Your task to perform on an android device: Open my contact list Image 0: 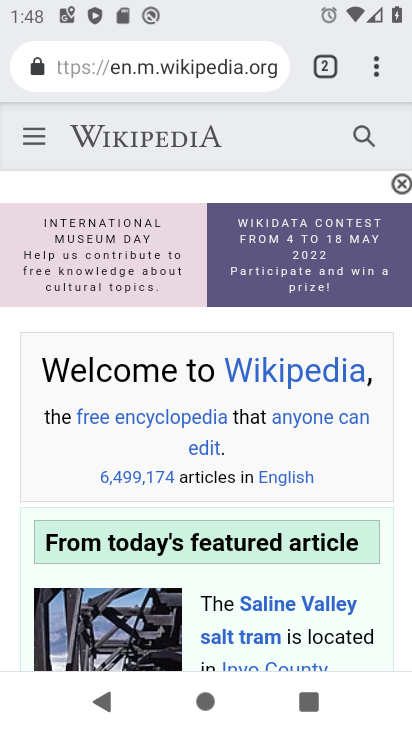
Step 0: press home button
Your task to perform on an android device: Open my contact list Image 1: 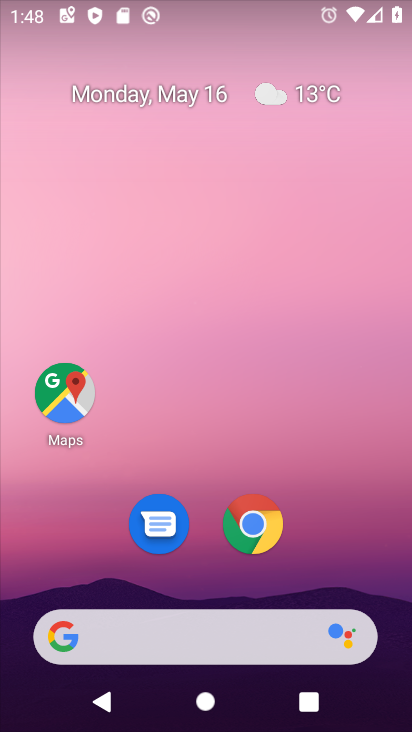
Step 1: drag from (378, 541) to (411, 99)
Your task to perform on an android device: Open my contact list Image 2: 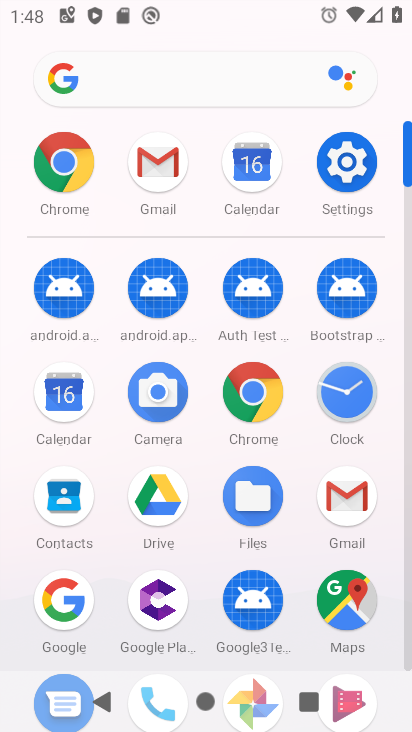
Step 2: click (73, 485)
Your task to perform on an android device: Open my contact list Image 3: 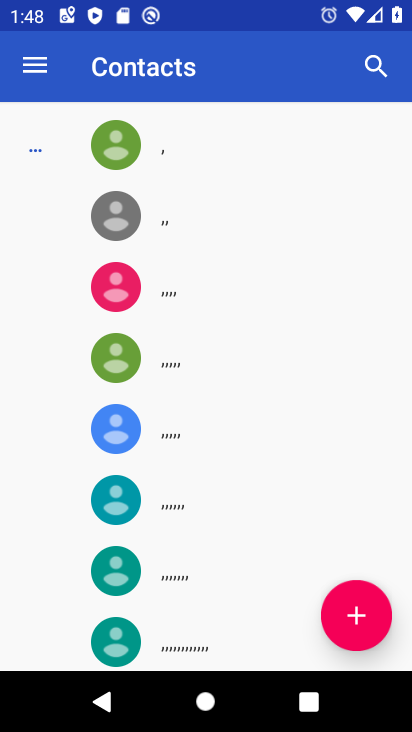
Step 3: task complete